Your task to perform on an android device: Check the news Image 0: 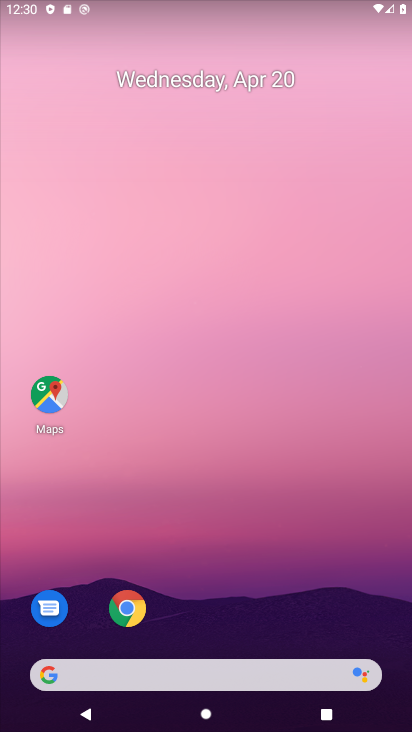
Step 0: drag from (250, 234) to (258, 112)
Your task to perform on an android device: Check the news Image 1: 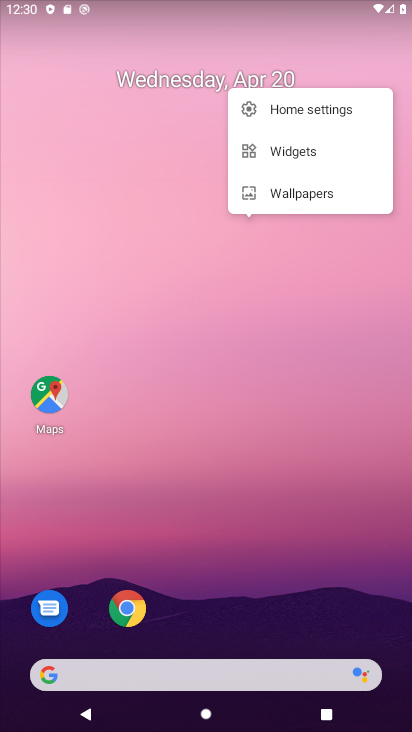
Step 1: click (220, 532)
Your task to perform on an android device: Check the news Image 2: 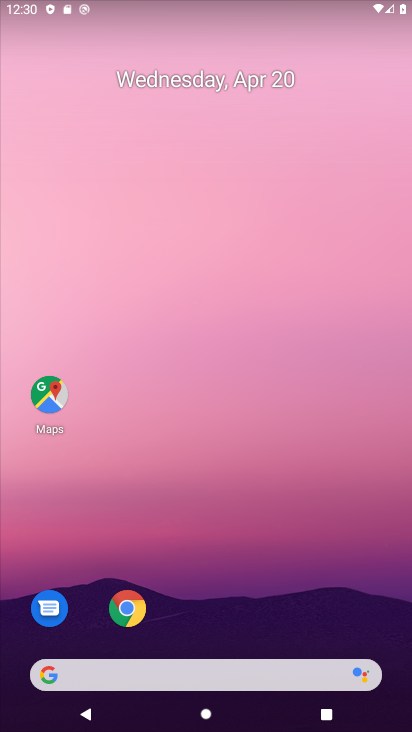
Step 2: drag from (211, 607) to (218, 170)
Your task to perform on an android device: Check the news Image 3: 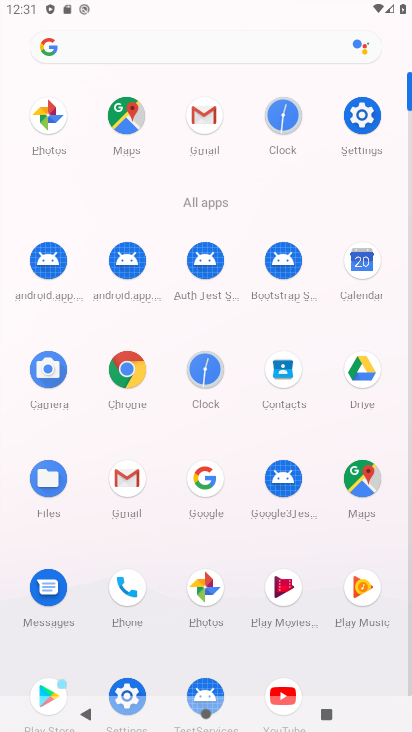
Step 3: click (200, 476)
Your task to perform on an android device: Check the news Image 4: 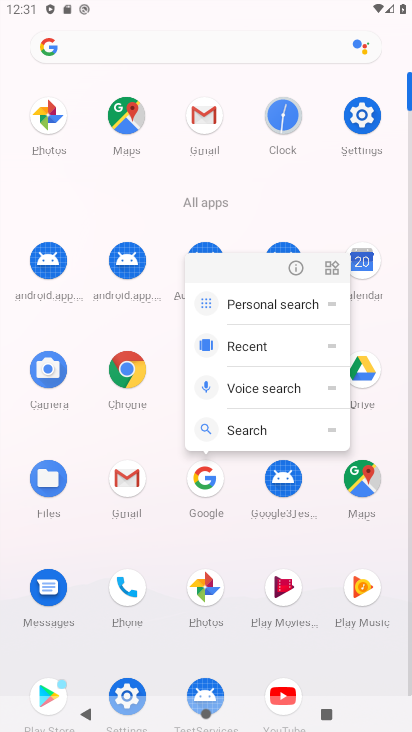
Step 4: click (222, 475)
Your task to perform on an android device: Check the news Image 5: 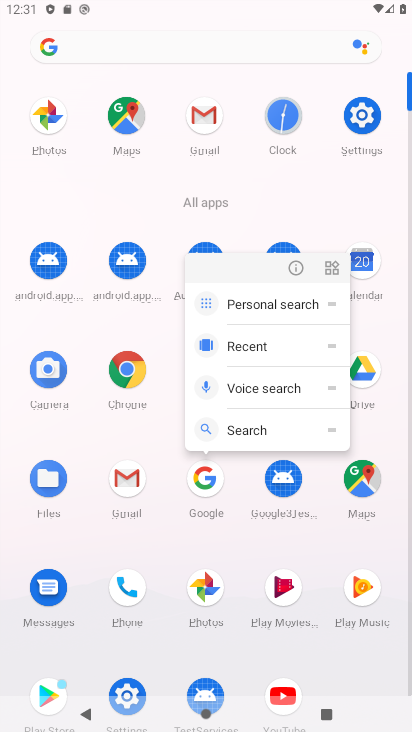
Step 5: click (215, 475)
Your task to perform on an android device: Check the news Image 6: 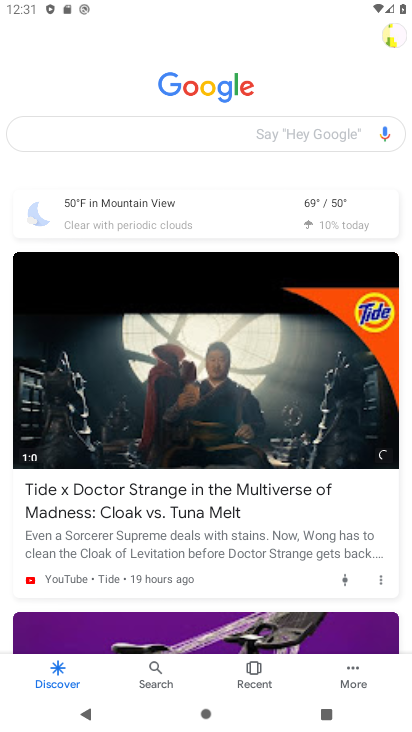
Step 6: task complete